Your task to perform on an android device: When is my next appointment? Image 0: 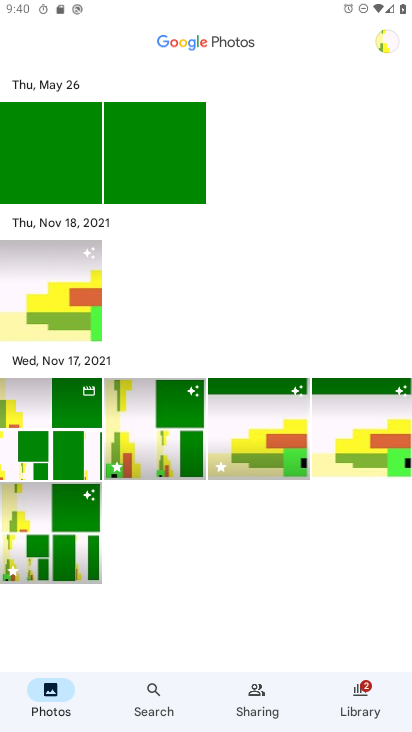
Step 0: press home button
Your task to perform on an android device: When is my next appointment? Image 1: 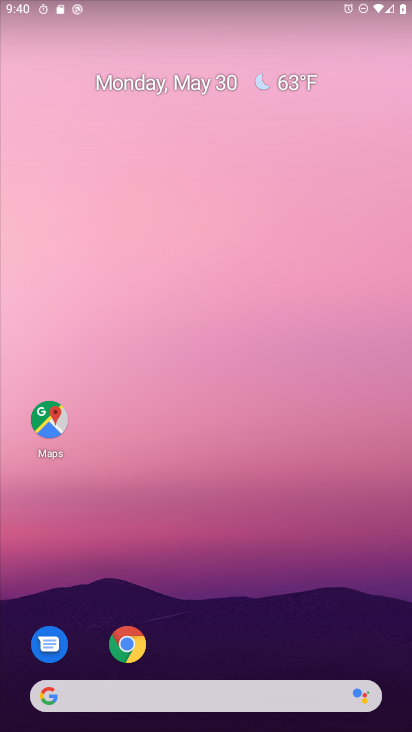
Step 1: drag from (210, 644) to (316, 10)
Your task to perform on an android device: When is my next appointment? Image 2: 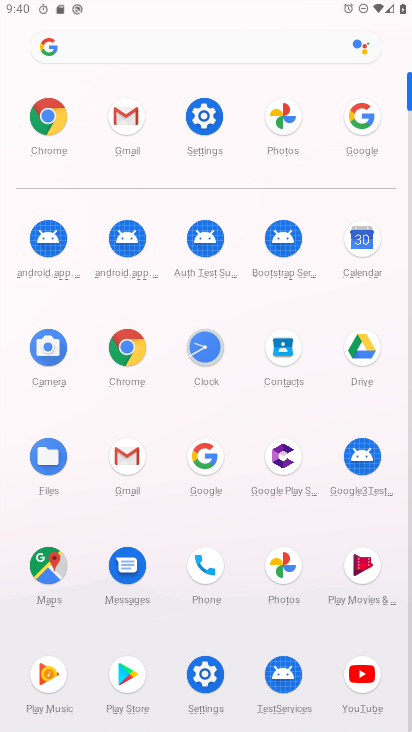
Step 2: click (358, 245)
Your task to perform on an android device: When is my next appointment? Image 3: 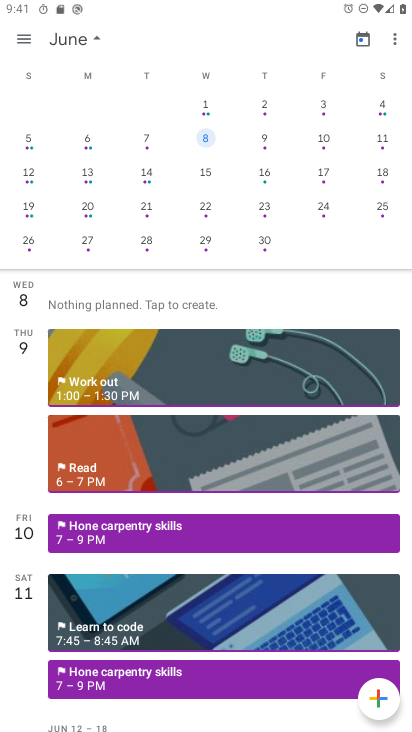
Step 3: drag from (57, 254) to (384, 252)
Your task to perform on an android device: When is my next appointment? Image 4: 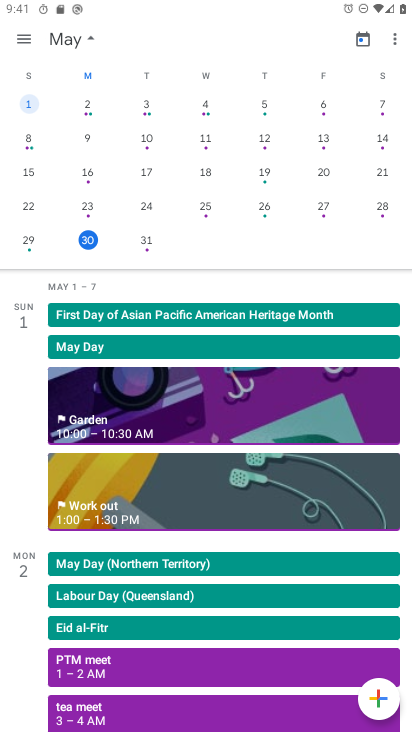
Step 4: click (144, 239)
Your task to perform on an android device: When is my next appointment? Image 5: 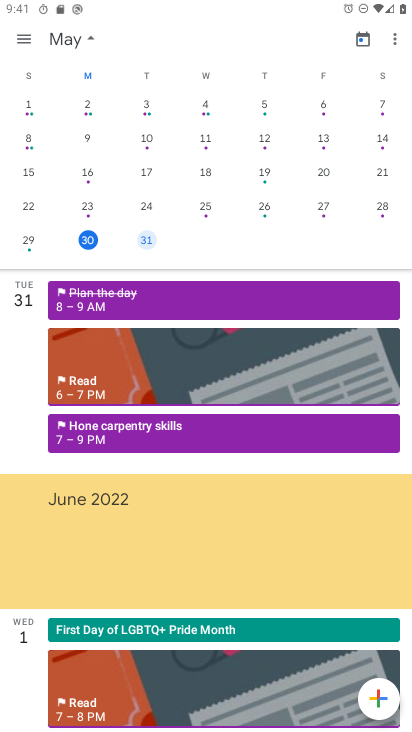
Step 5: task complete